Your task to perform on an android device: change your default location settings in chrome Image 0: 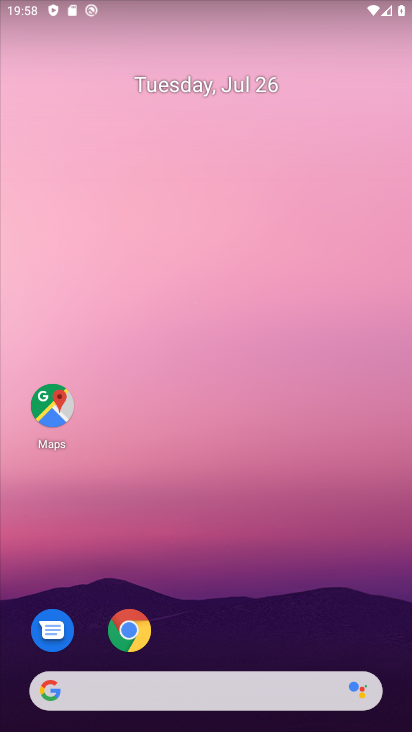
Step 0: press home button
Your task to perform on an android device: change your default location settings in chrome Image 1: 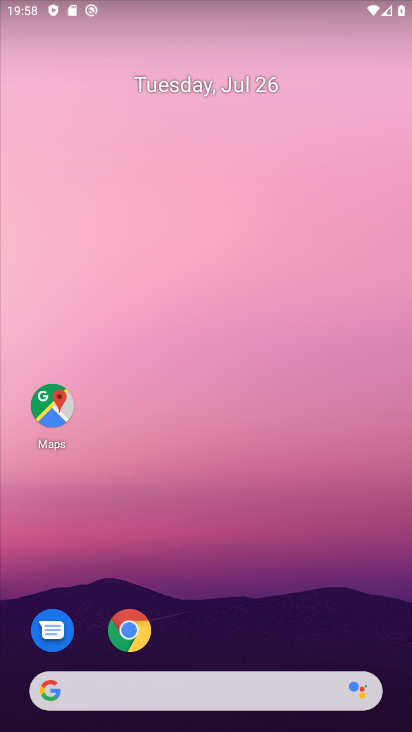
Step 1: drag from (337, 633) to (361, 161)
Your task to perform on an android device: change your default location settings in chrome Image 2: 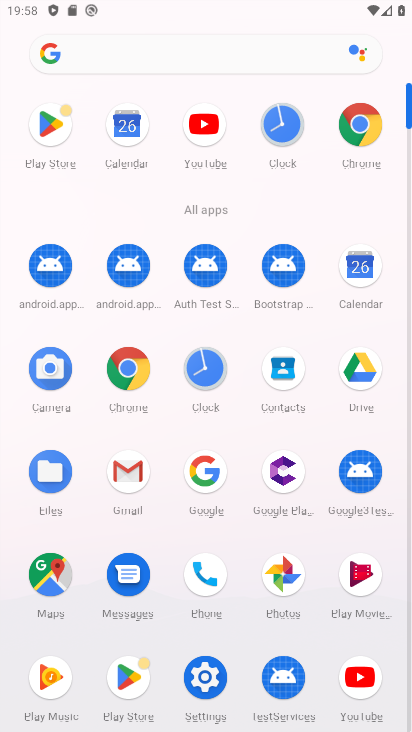
Step 2: click (128, 369)
Your task to perform on an android device: change your default location settings in chrome Image 3: 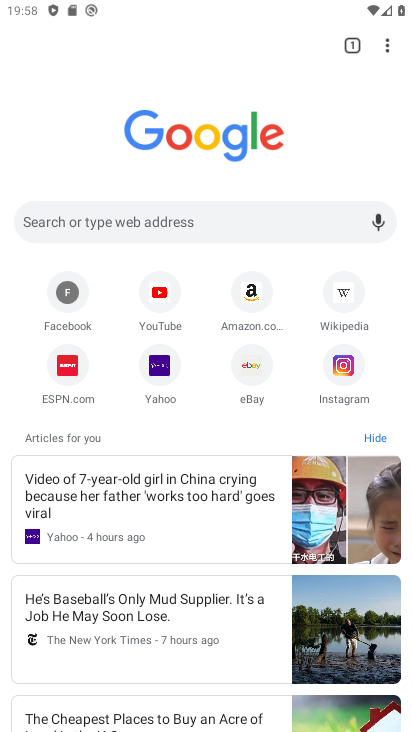
Step 3: click (384, 46)
Your task to perform on an android device: change your default location settings in chrome Image 4: 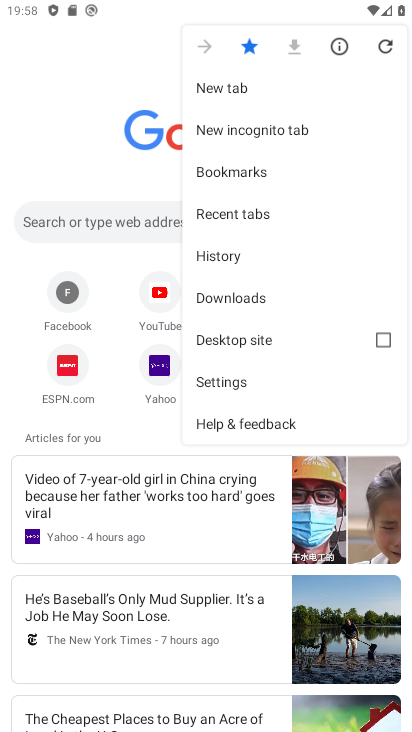
Step 4: click (289, 384)
Your task to perform on an android device: change your default location settings in chrome Image 5: 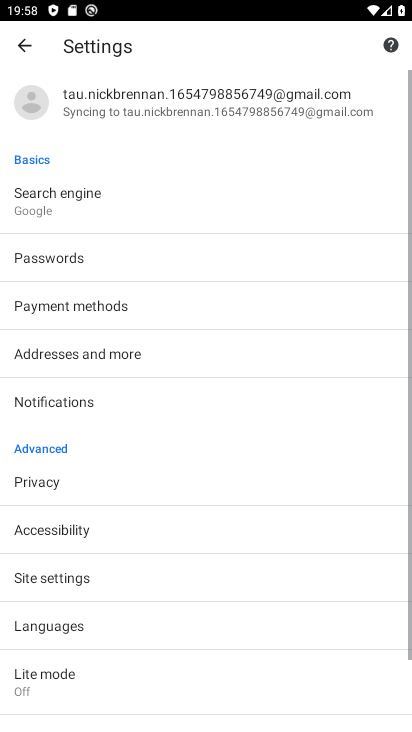
Step 5: drag from (278, 434) to (284, 346)
Your task to perform on an android device: change your default location settings in chrome Image 6: 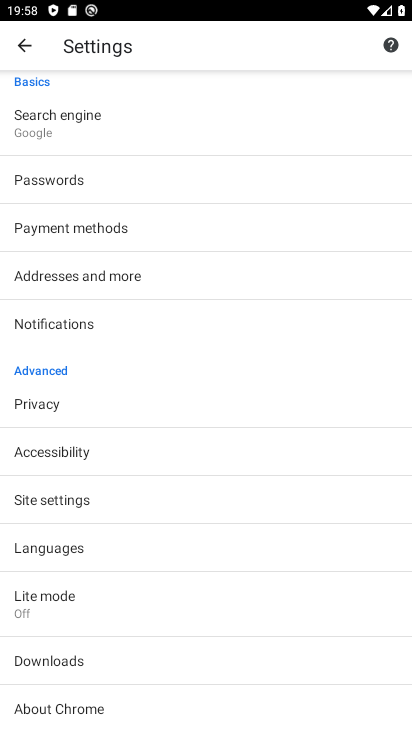
Step 6: drag from (280, 435) to (284, 359)
Your task to perform on an android device: change your default location settings in chrome Image 7: 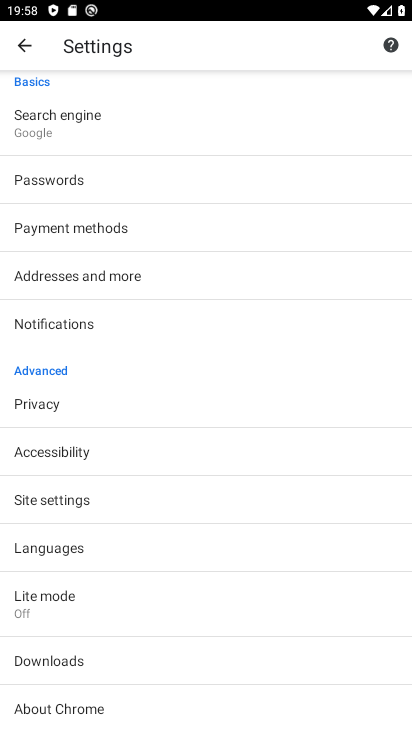
Step 7: click (277, 504)
Your task to perform on an android device: change your default location settings in chrome Image 8: 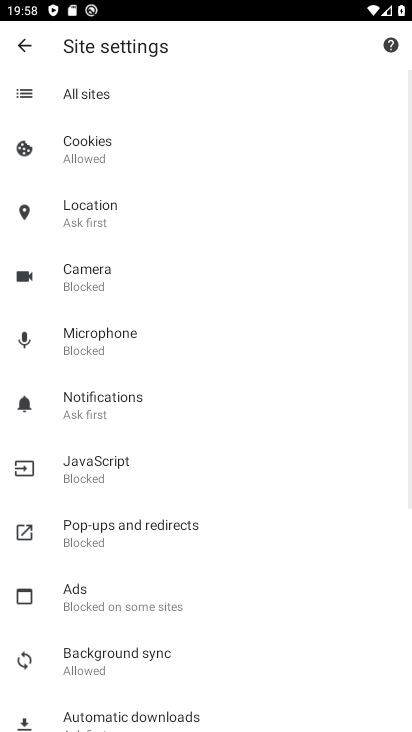
Step 8: drag from (277, 504) to (282, 443)
Your task to perform on an android device: change your default location settings in chrome Image 9: 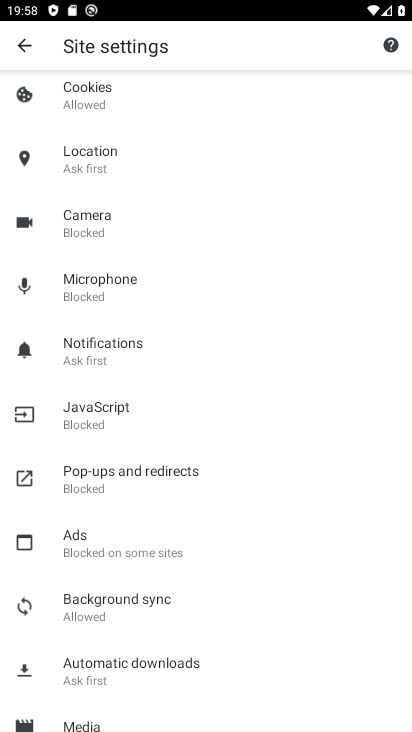
Step 9: drag from (276, 523) to (278, 377)
Your task to perform on an android device: change your default location settings in chrome Image 10: 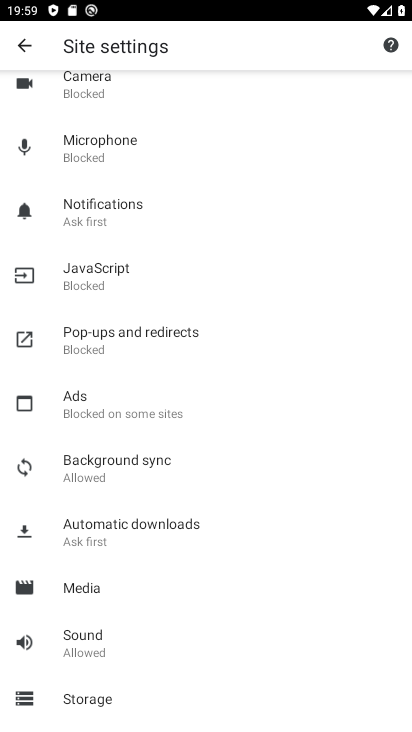
Step 10: drag from (277, 507) to (276, 345)
Your task to perform on an android device: change your default location settings in chrome Image 11: 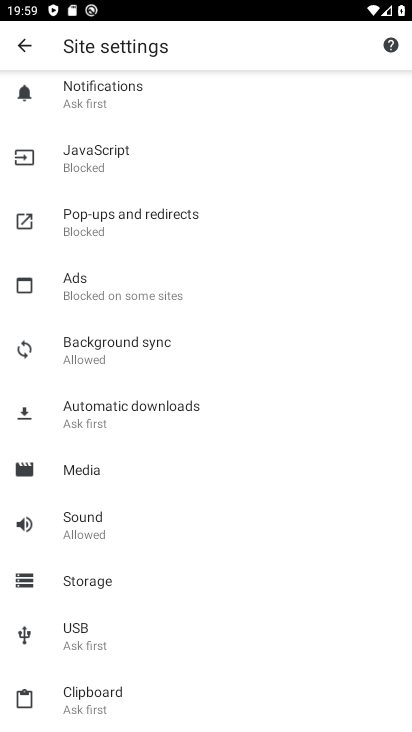
Step 11: drag from (289, 507) to (293, 332)
Your task to perform on an android device: change your default location settings in chrome Image 12: 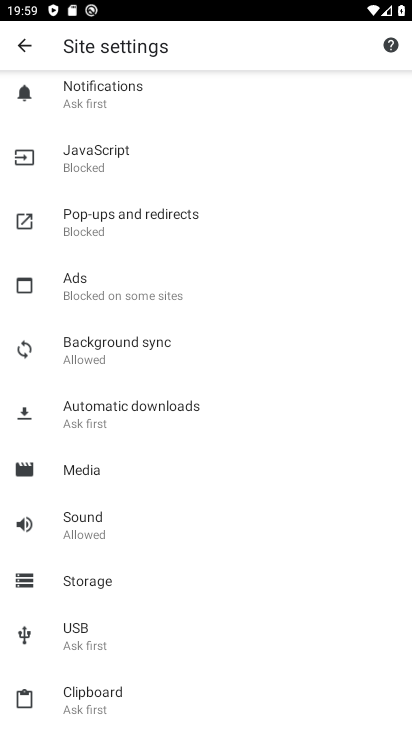
Step 12: drag from (295, 279) to (295, 358)
Your task to perform on an android device: change your default location settings in chrome Image 13: 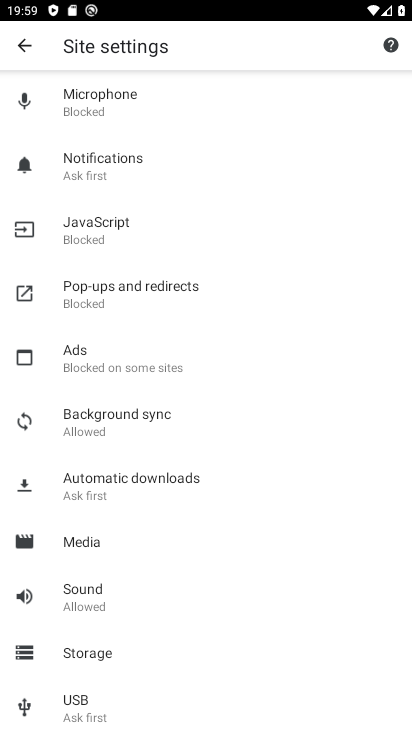
Step 13: drag from (296, 255) to (298, 326)
Your task to perform on an android device: change your default location settings in chrome Image 14: 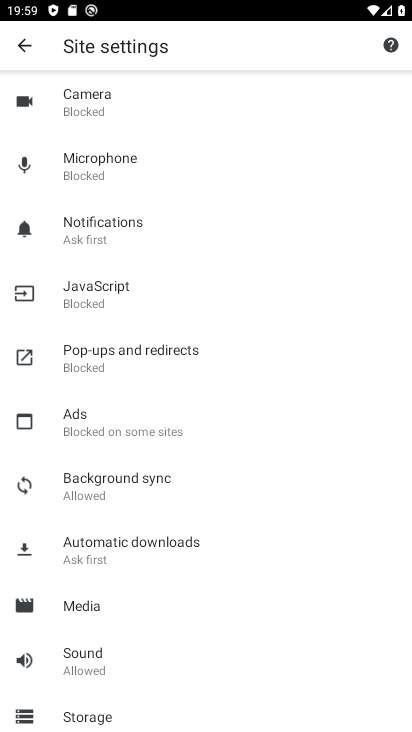
Step 14: drag from (293, 241) to (290, 406)
Your task to perform on an android device: change your default location settings in chrome Image 15: 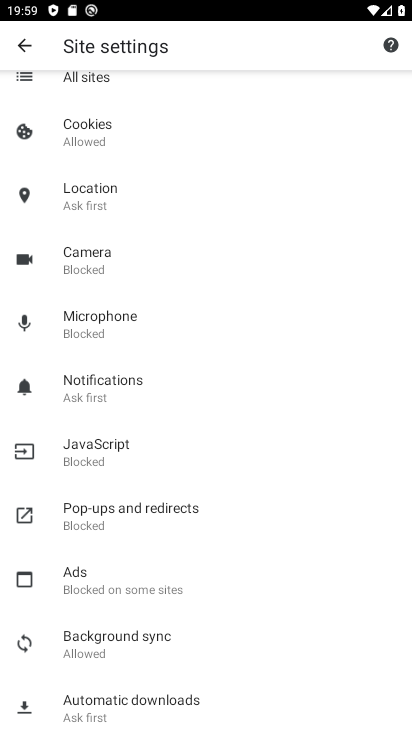
Step 15: click (182, 204)
Your task to perform on an android device: change your default location settings in chrome Image 16: 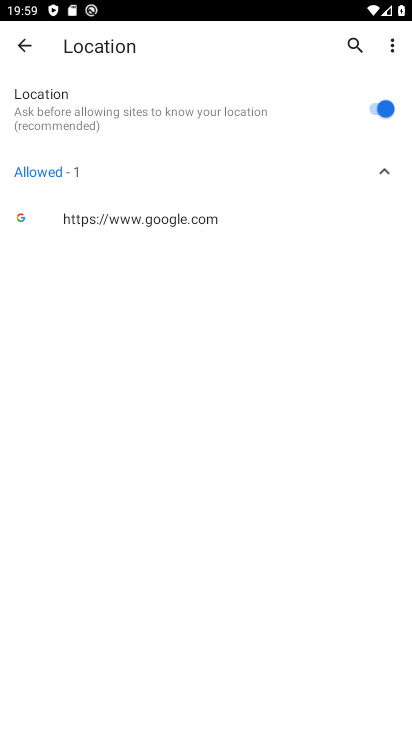
Step 16: click (369, 110)
Your task to perform on an android device: change your default location settings in chrome Image 17: 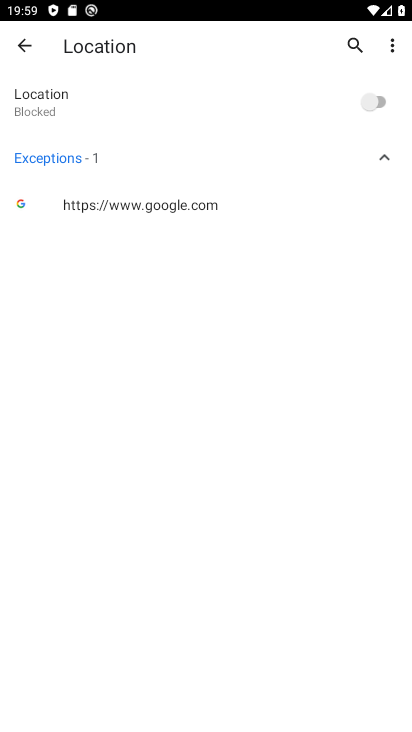
Step 17: task complete